Your task to perform on an android device: Open notification settings Image 0: 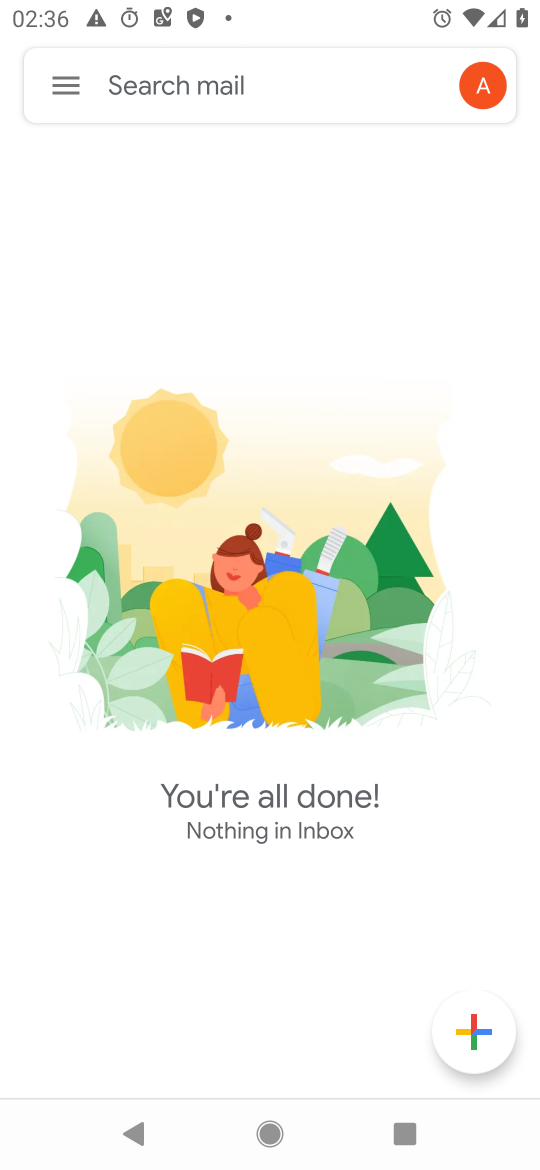
Step 0: press home button
Your task to perform on an android device: Open notification settings Image 1: 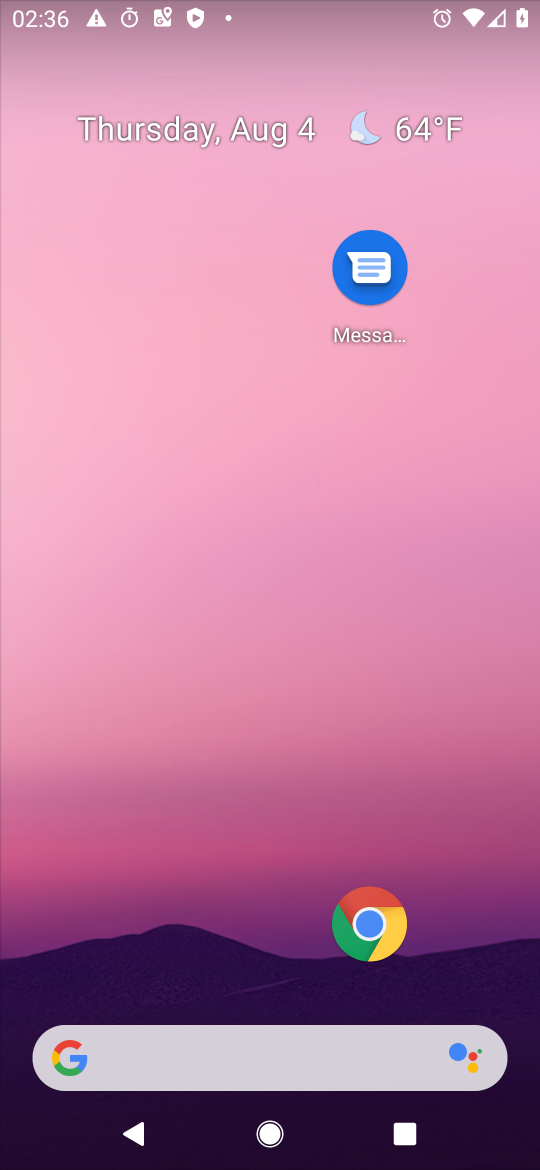
Step 1: drag from (122, 932) to (418, 208)
Your task to perform on an android device: Open notification settings Image 2: 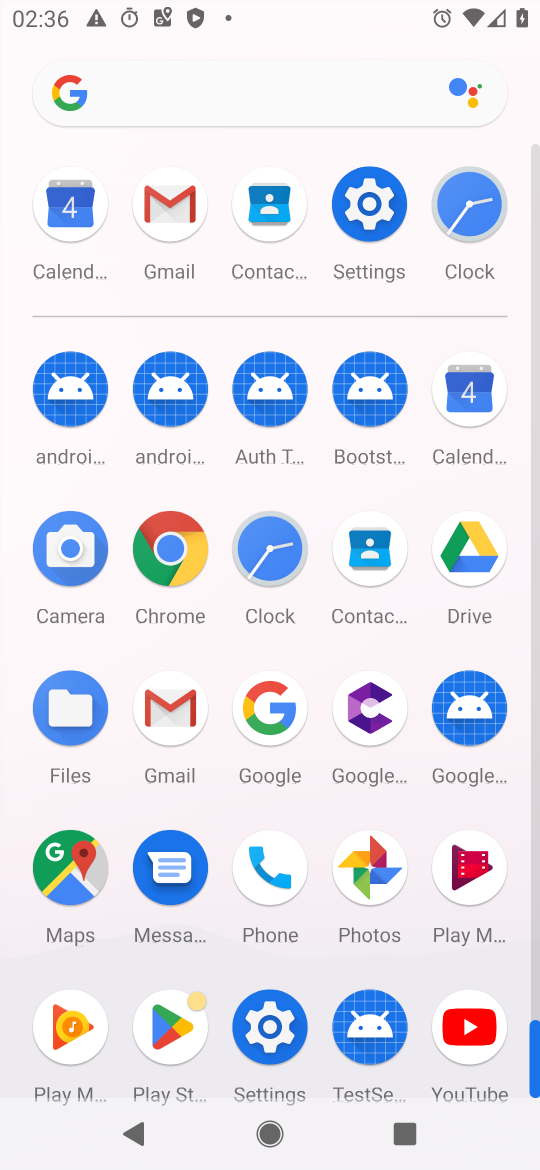
Step 2: click (261, 1023)
Your task to perform on an android device: Open notification settings Image 3: 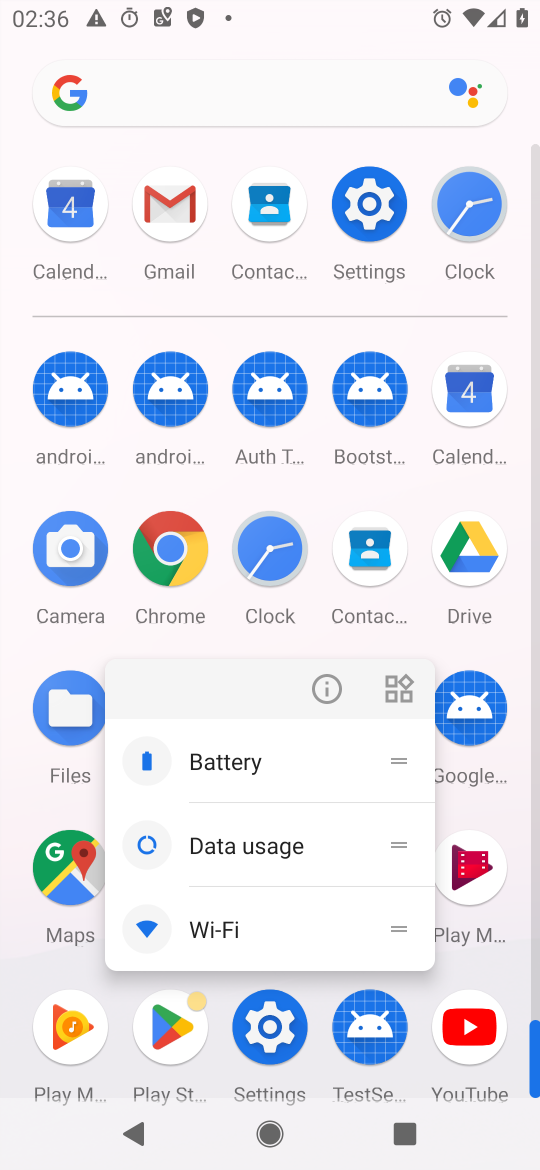
Step 3: click (265, 1026)
Your task to perform on an android device: Open notification settings Image 4: 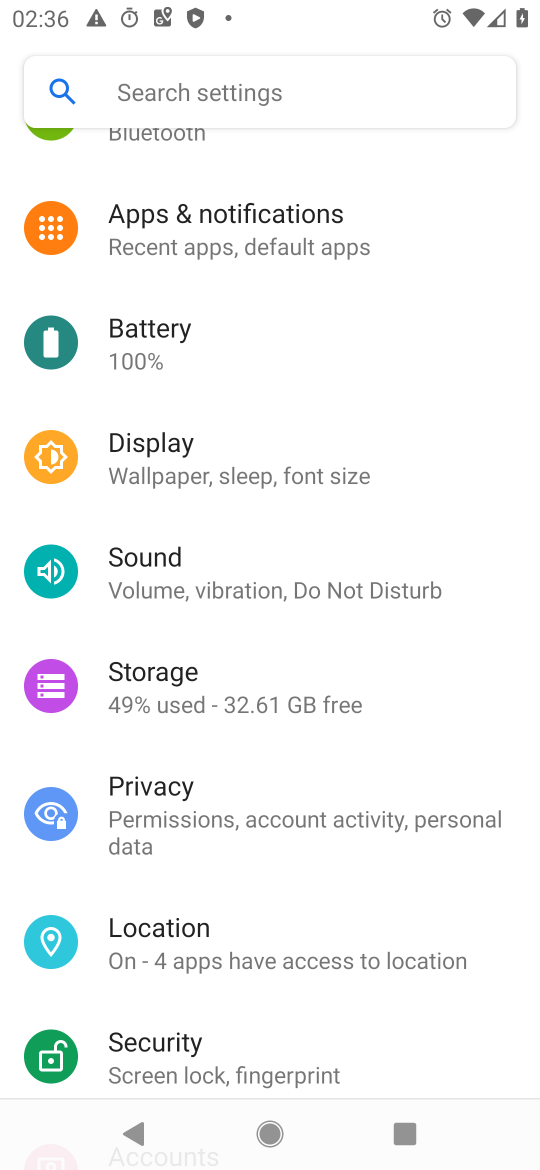
Step 4: click (277, 226)
Your task to perform on an android device: Open notification settings Image 5: 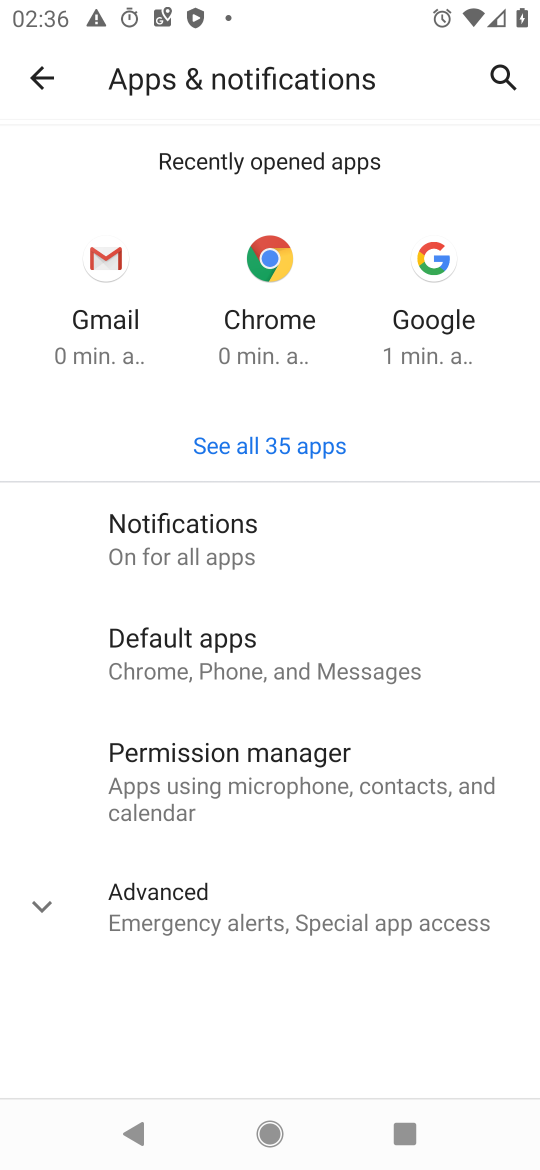
Step 5: task complete